Your task to perform on an android device: Install the Weather app Image 0: 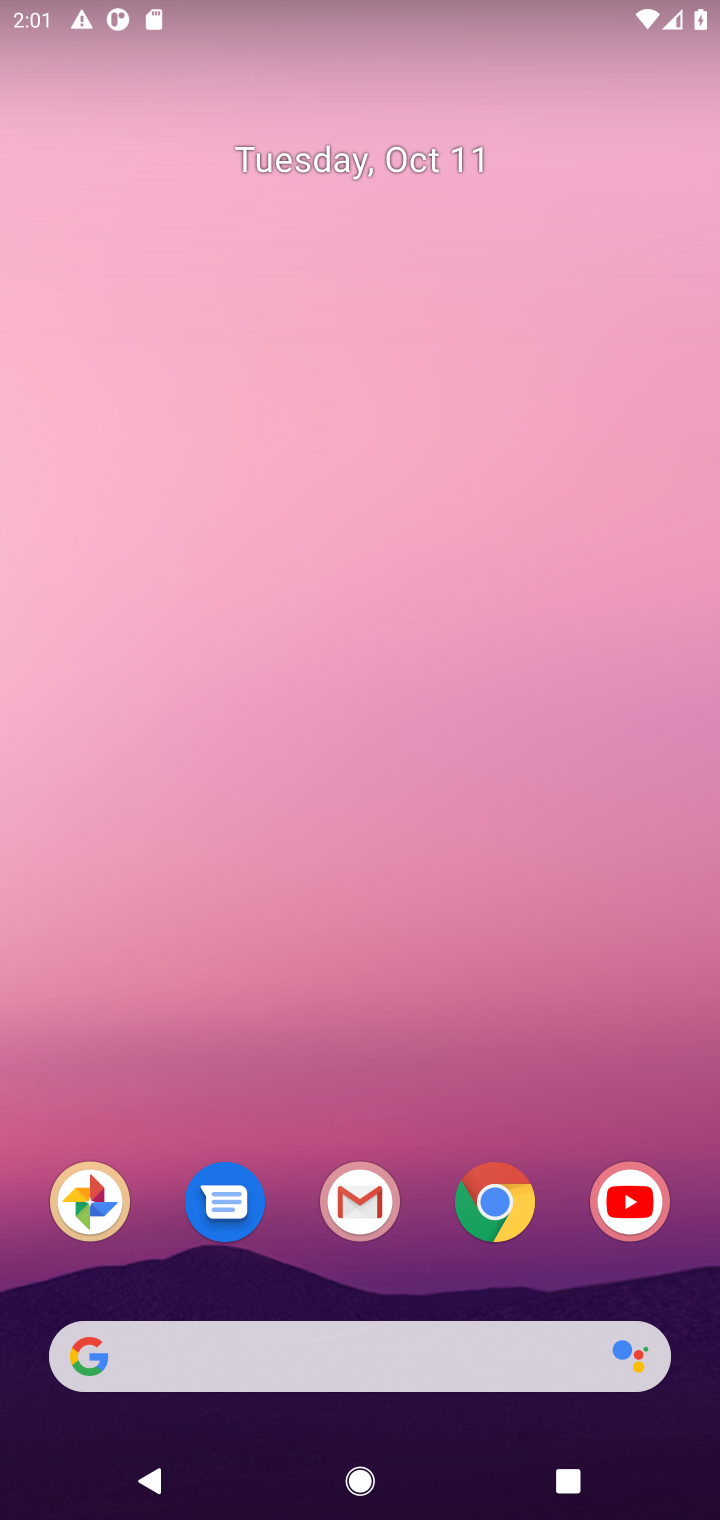
Step 0: drag from (440, 1205) to (415, 304)
Your task to perform on an android device: Install the Weather app Image 1: 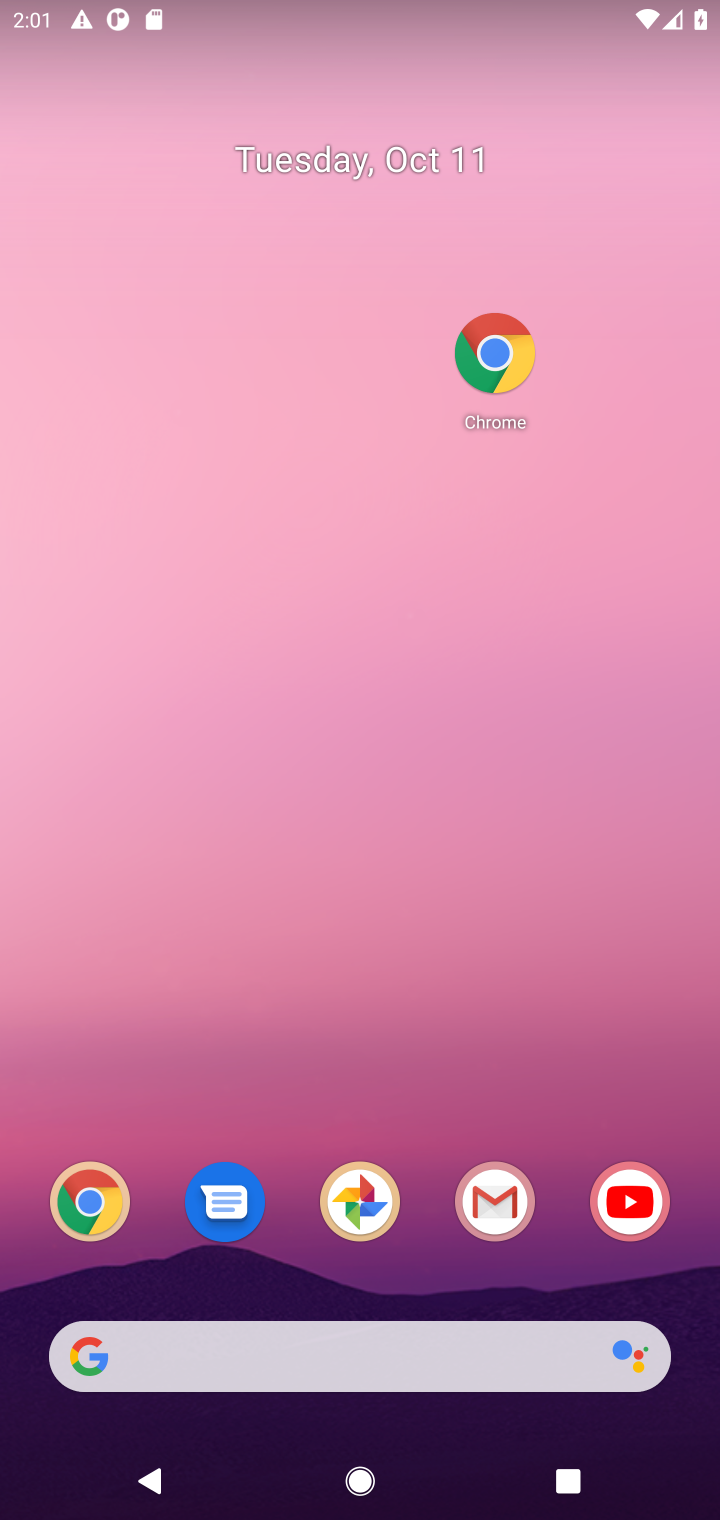
Step 1: drag from (488, 342) to (456, 1028)
Your task to perform on an android device: Install the Weather app Image 2: 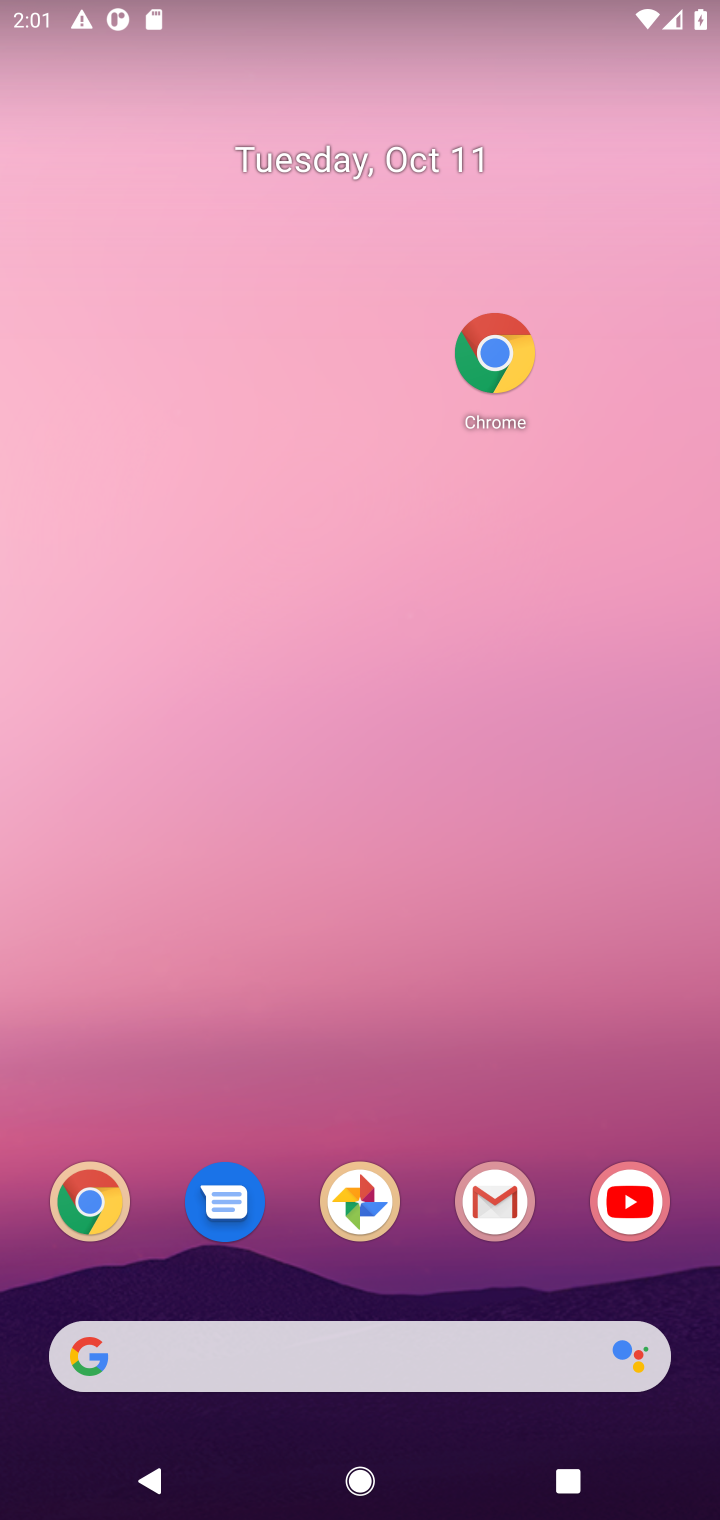
Step 2: drag from (489, 355) to (460, 985)
Your task to perform on an android device: Install the Weather app Image 3: 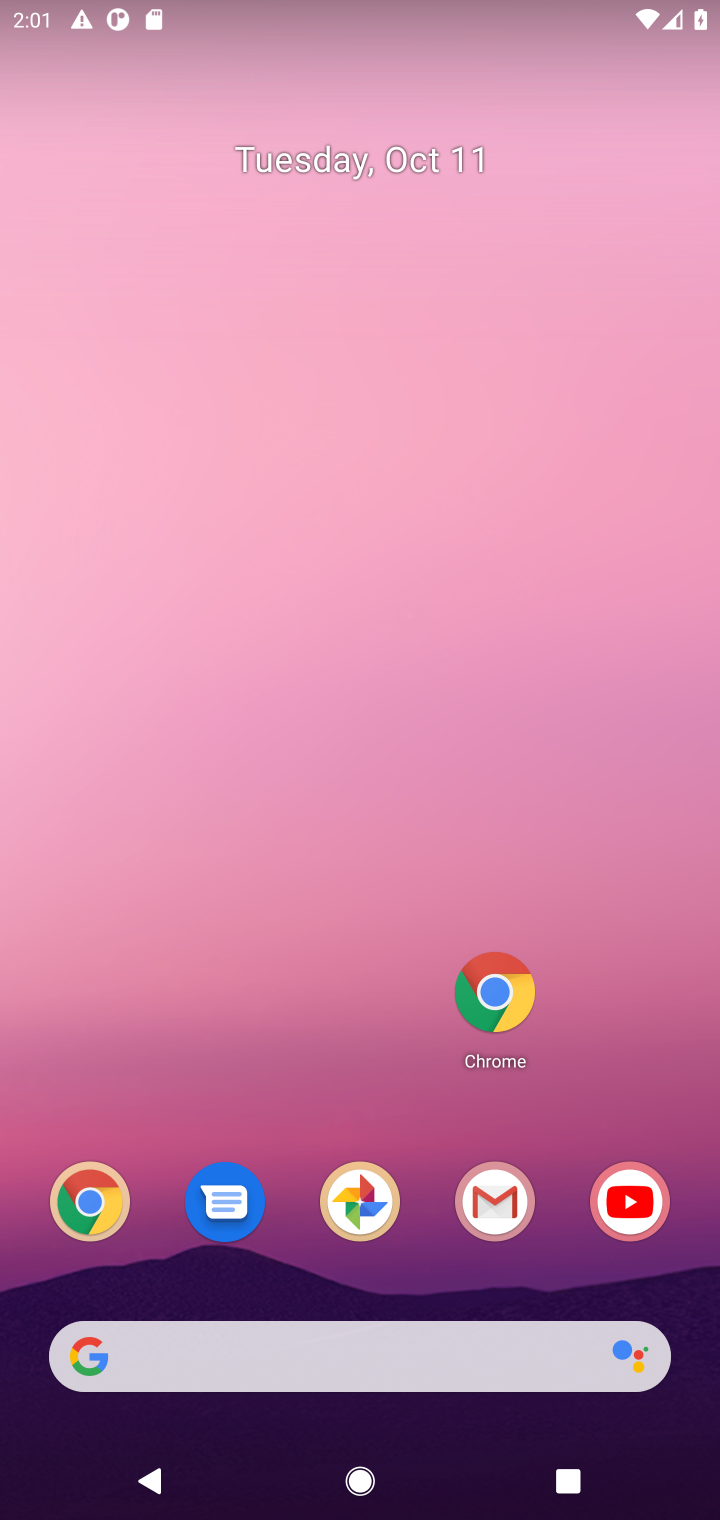
Step 3: drag from (458, 932) to (591, 122)
Your task to perform on an android device: Install the Weather app Image 4: 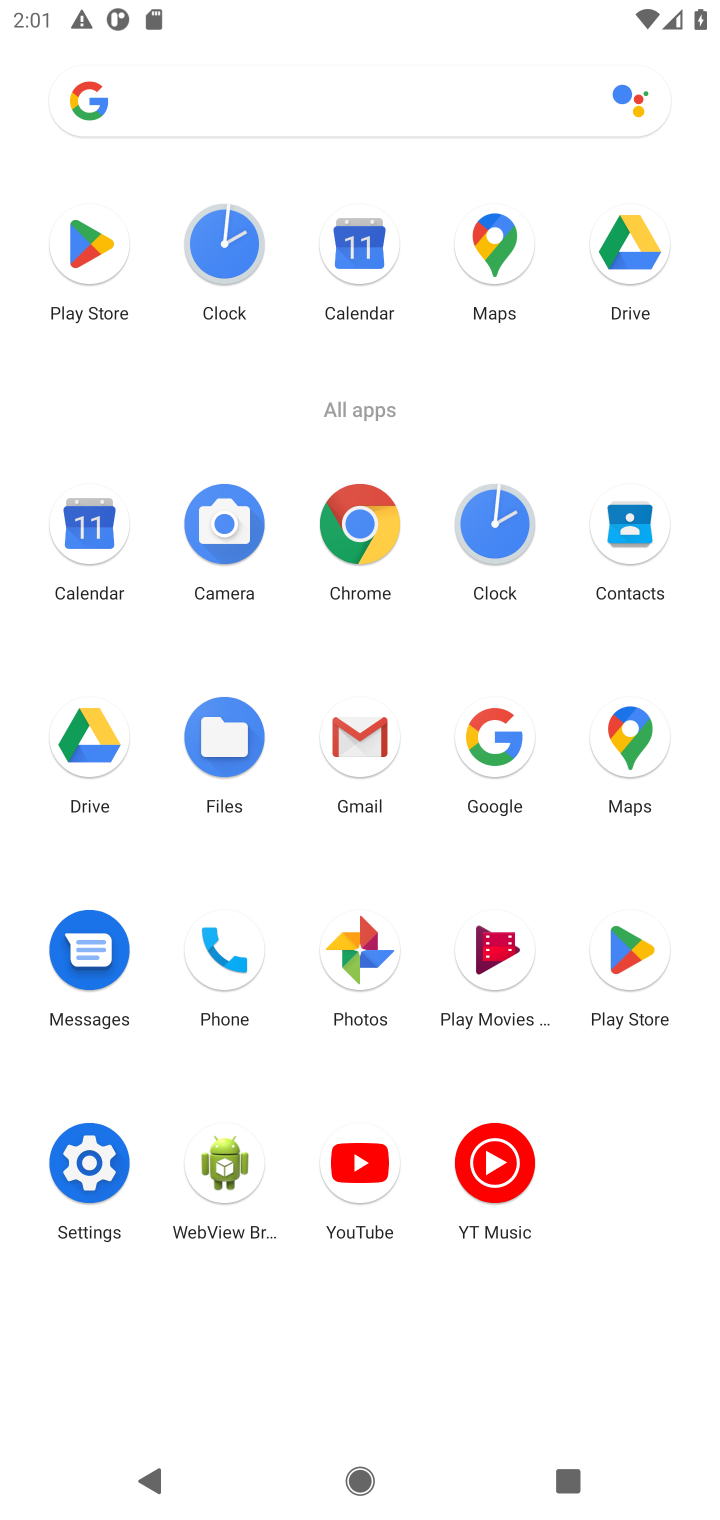
Step 4: click (639, 945)
Your task to perform on an android device: Install the Weather app Image 5: 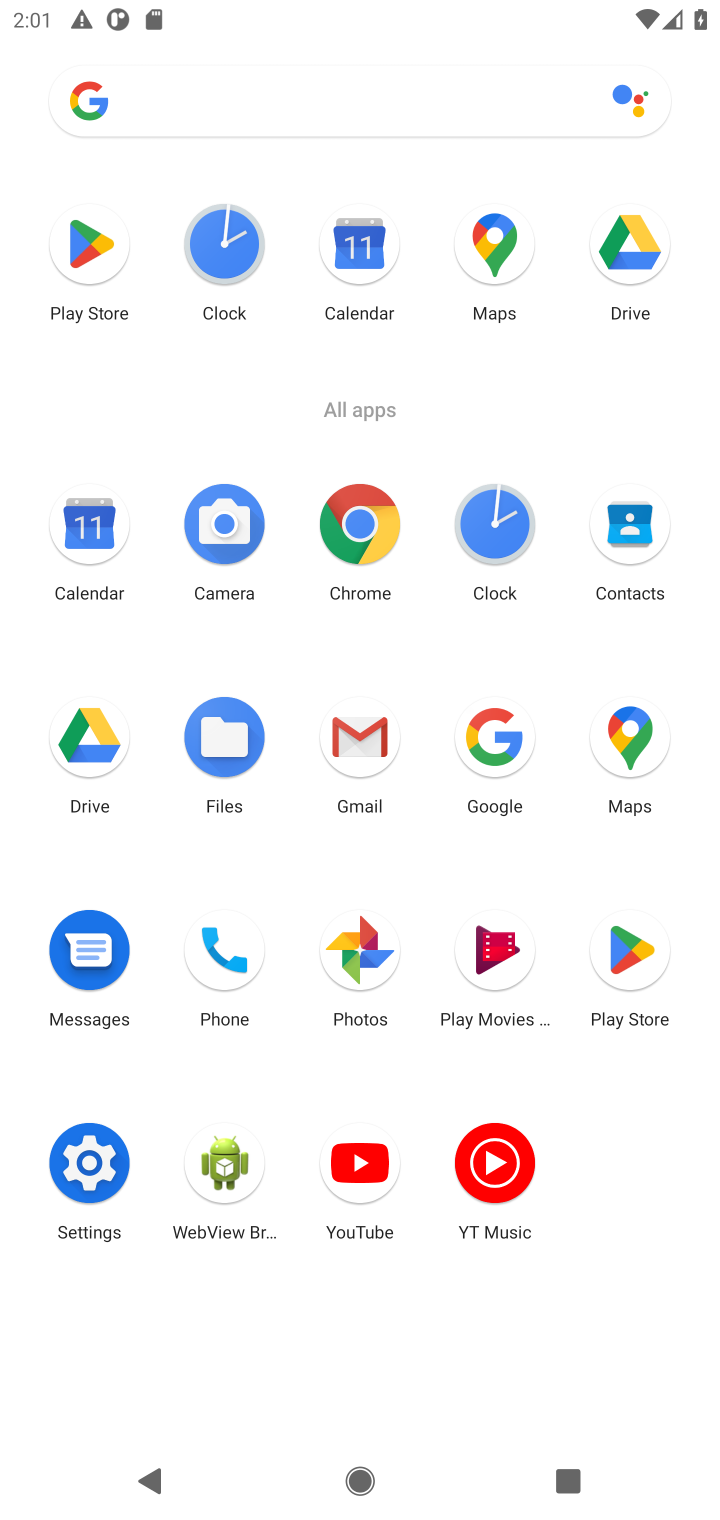
Step 5: click (629, 931)
Your task to perform on an android device: Install the Weather app Image 6: 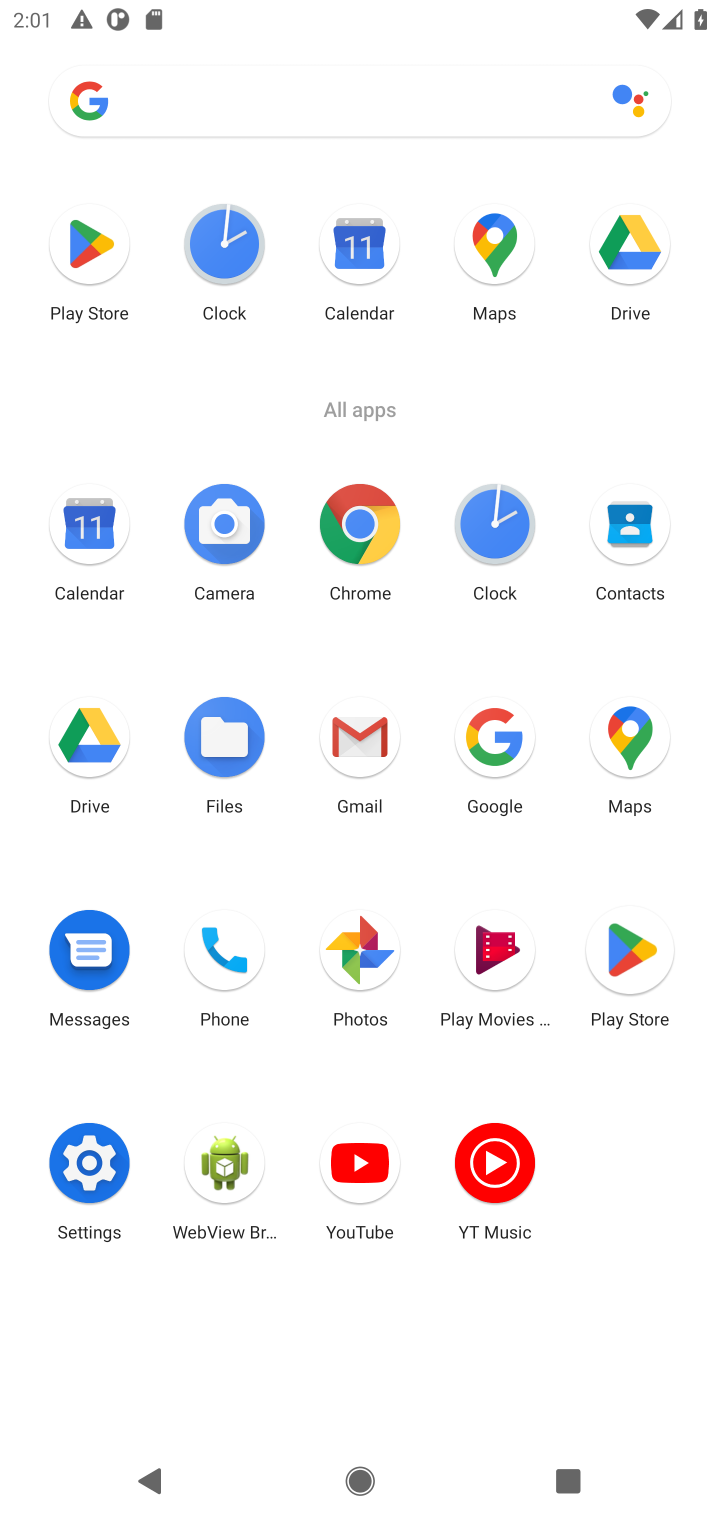
Step 6: click (624, 960)
Your task to perform on an android device: Install the Weather app Image 7: 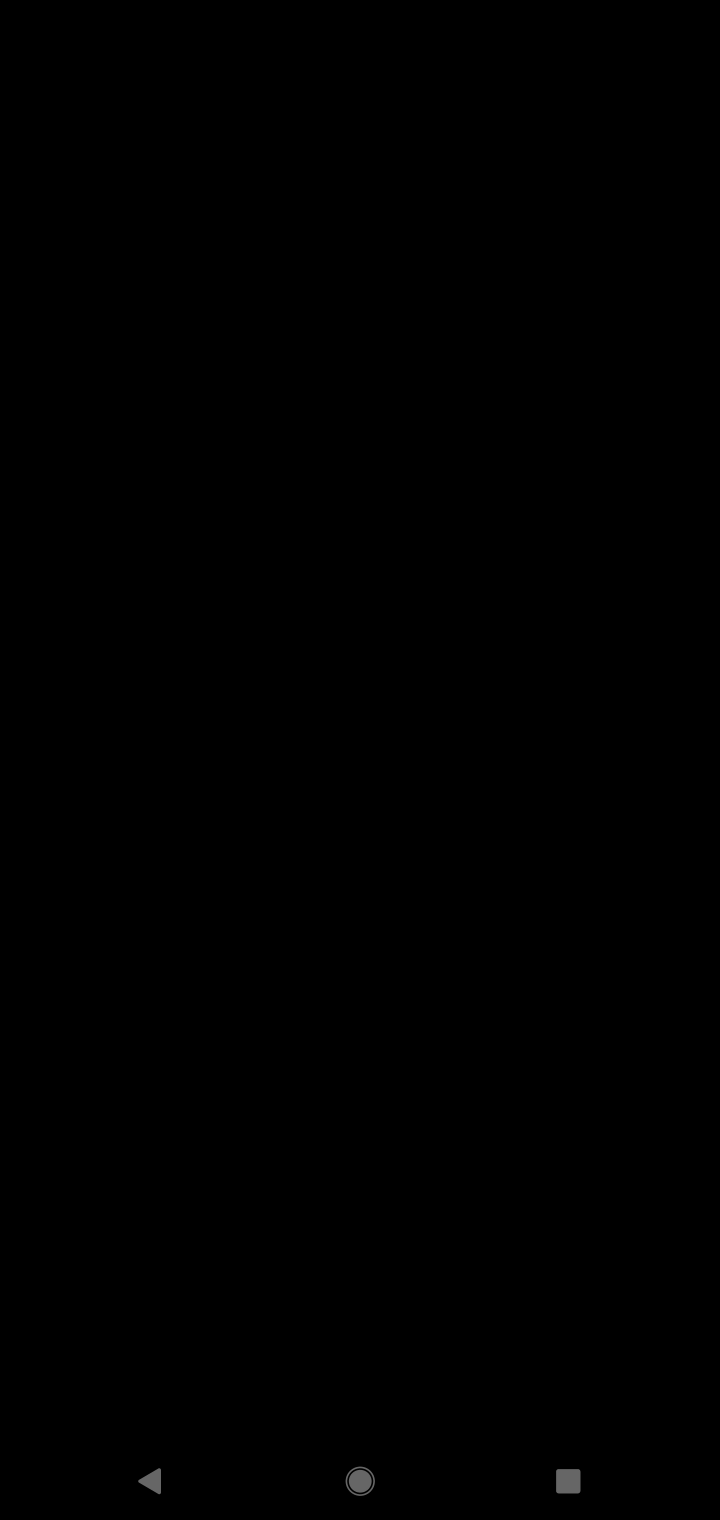
Step 7: task complete